Your task to perform on an android device: check data usage Image 0: 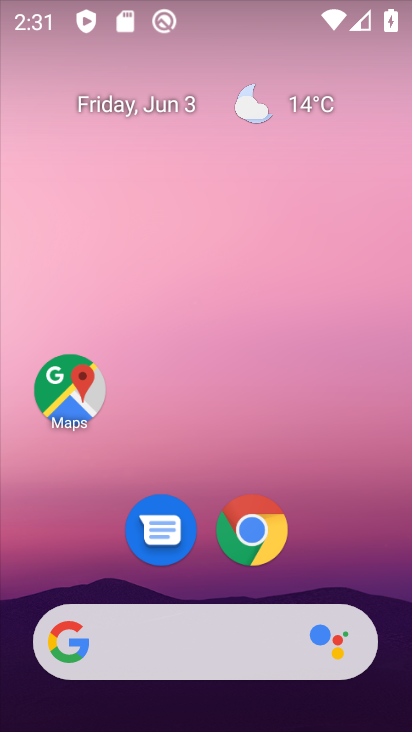
Step 0: drag from (114, 395) to (121, 360)
Your task to perform on an android device: check data usage Image 1: 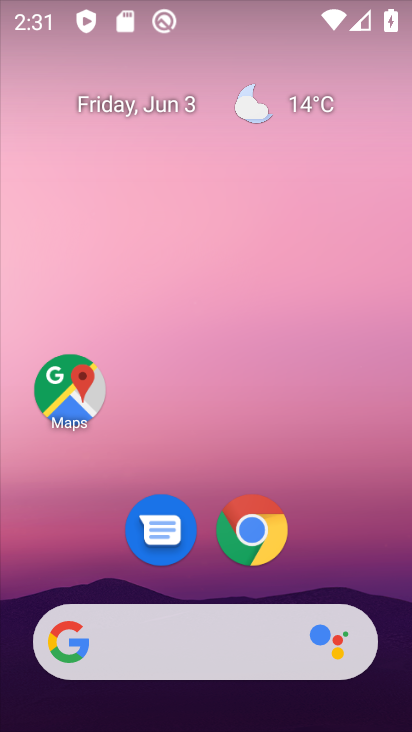
Step 1: drag from (81, 602) to (203, 168)
Your task to perform on an android device: check data usage Image 2: 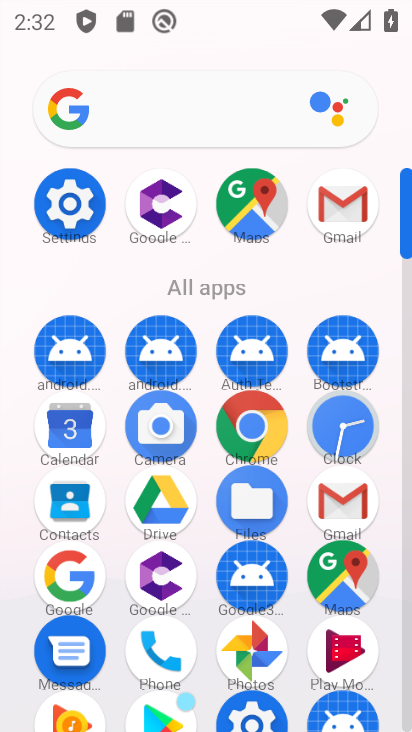
Step 2: drag from (213, 585) to (268, 356)
Your task to perform on an android device: check data usage Image 3: 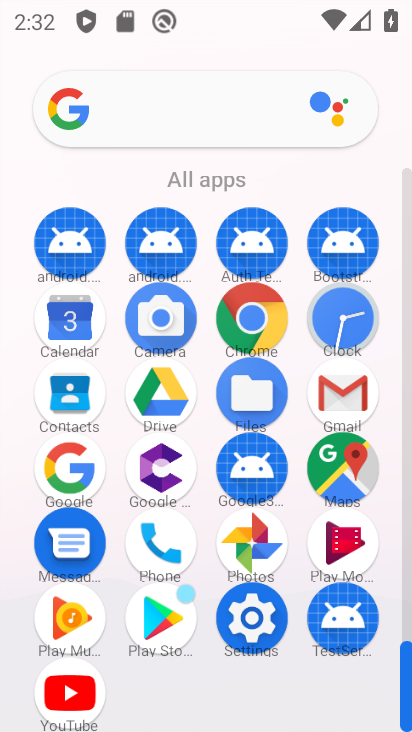
Step 3: click (265, 636)
Your task to perform on an android device: check data usage Image 4: 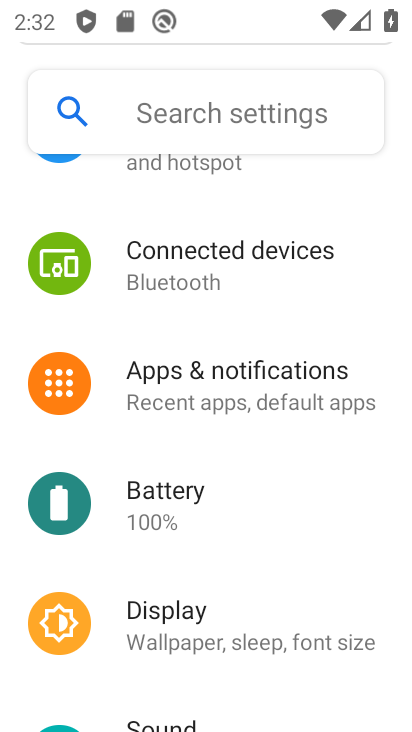
Step 4: drag from (268, 370) to (244, 562)
Your task to perform on an android device: check data usage Image 5: 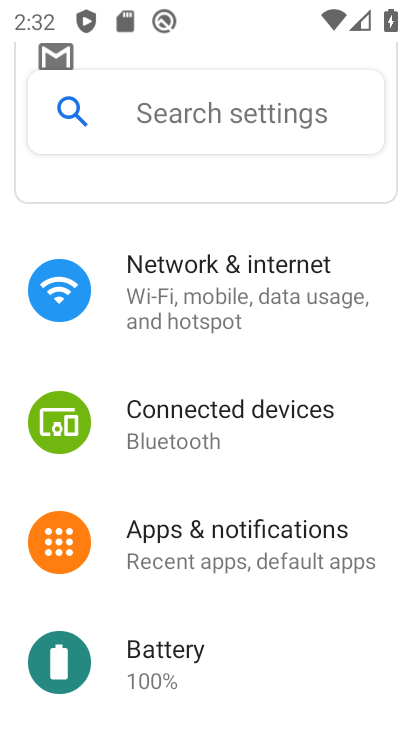
Step 5: click (279, 293)
Your task to perform on an android device: check data usage Image 6: 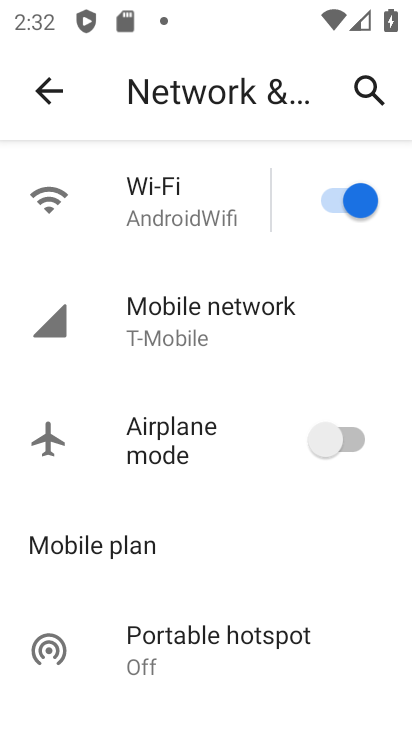
Step 6: click (226, 356)
Your task to perform on an android device: check data usage Image 7: 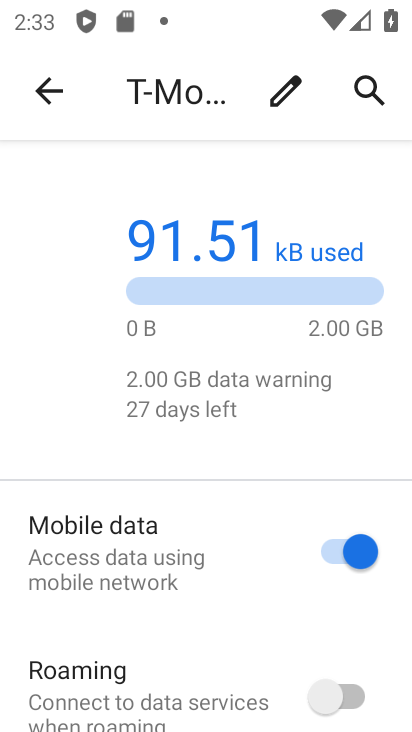
Step 7: task complete